Your task to perform on an android device: make emails show in primary in the gmail app Image 0: 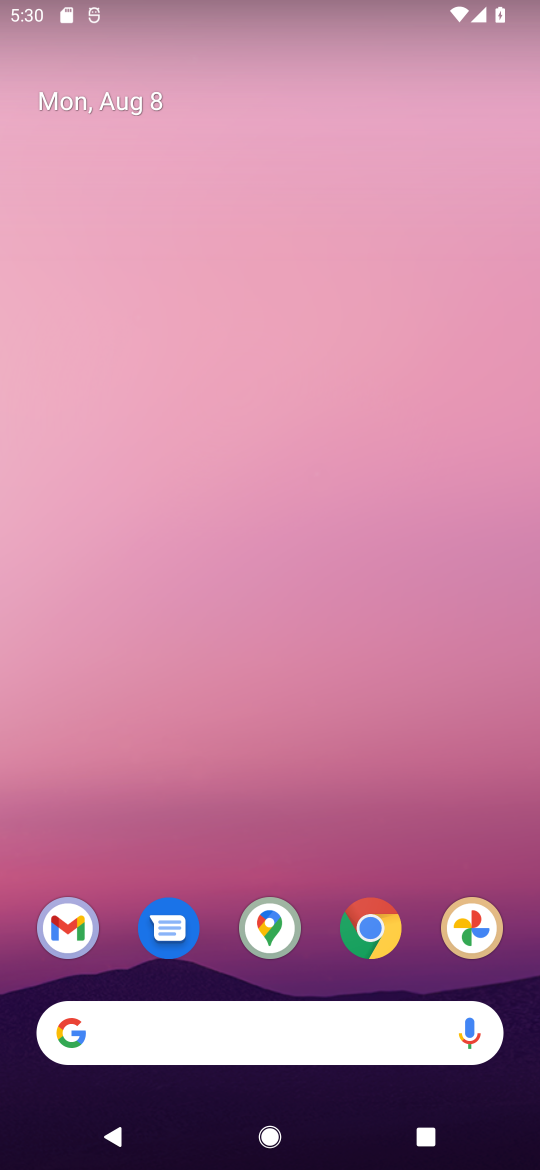
Step 0: drag from (214, 978) to (267, 9)
Your task to perform on an android device: make emails show in primary in the gmail app Image 1: 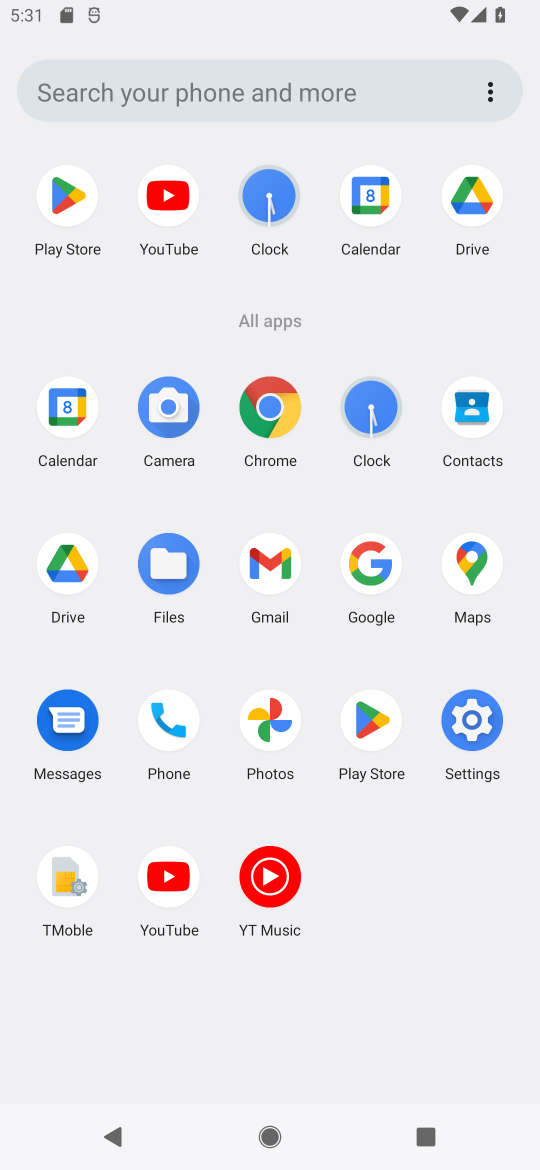
Step 1: click (282, 559)
Your task to perform on an android device: make emails show in primary in the gmail app Image 2: 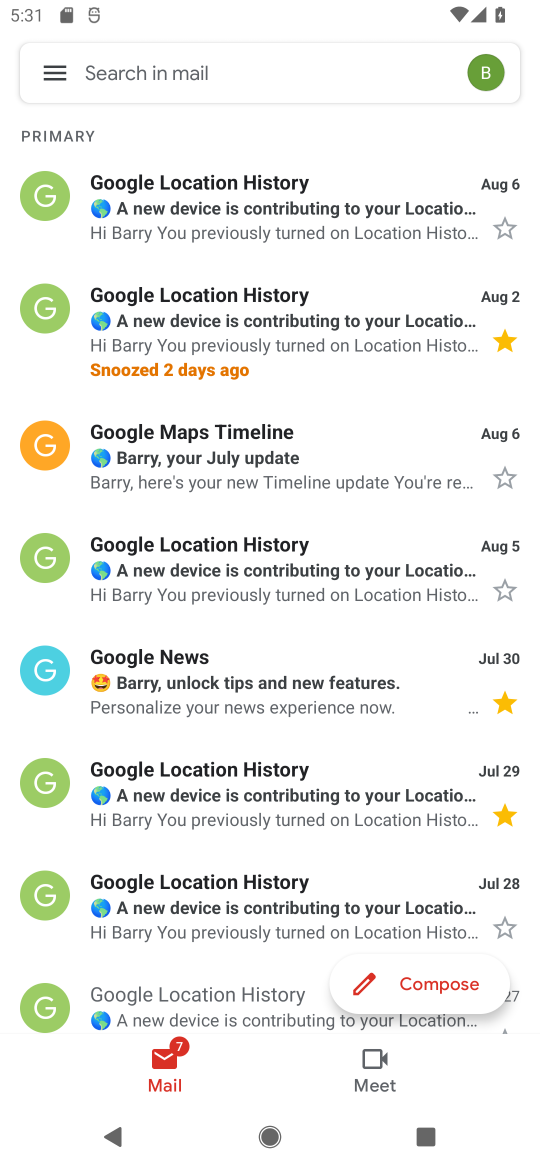
Step 2: click (47, 67)
Your task to perform on an android device: make emails show in primary in the gmail app Image 3: 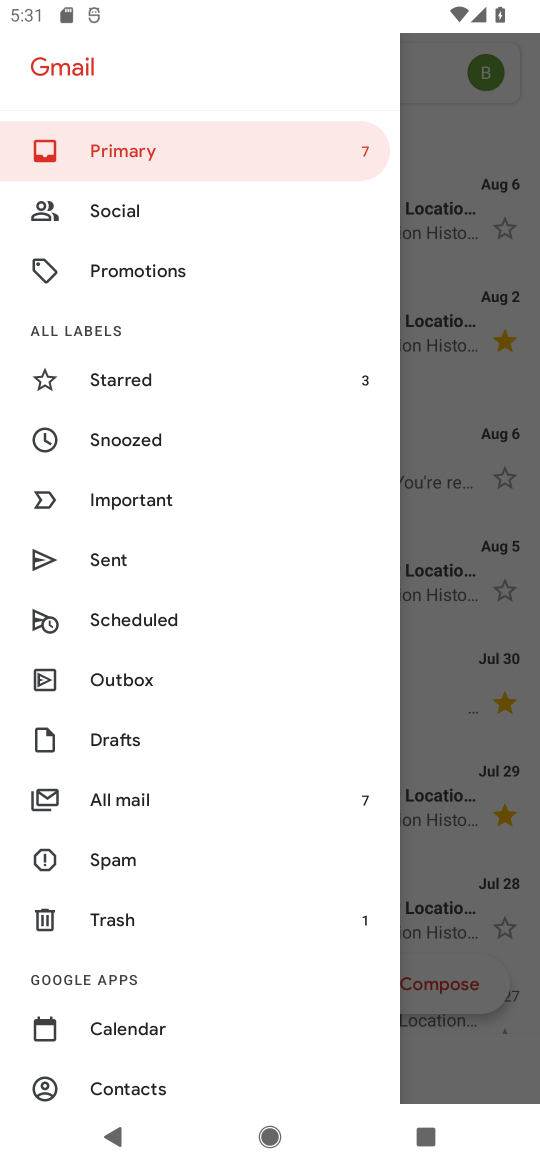
Step 3: drag from (118, 995) to (171, 619)
Your task to perform on an android device: make emails show in primary in the gmail app Image 4: 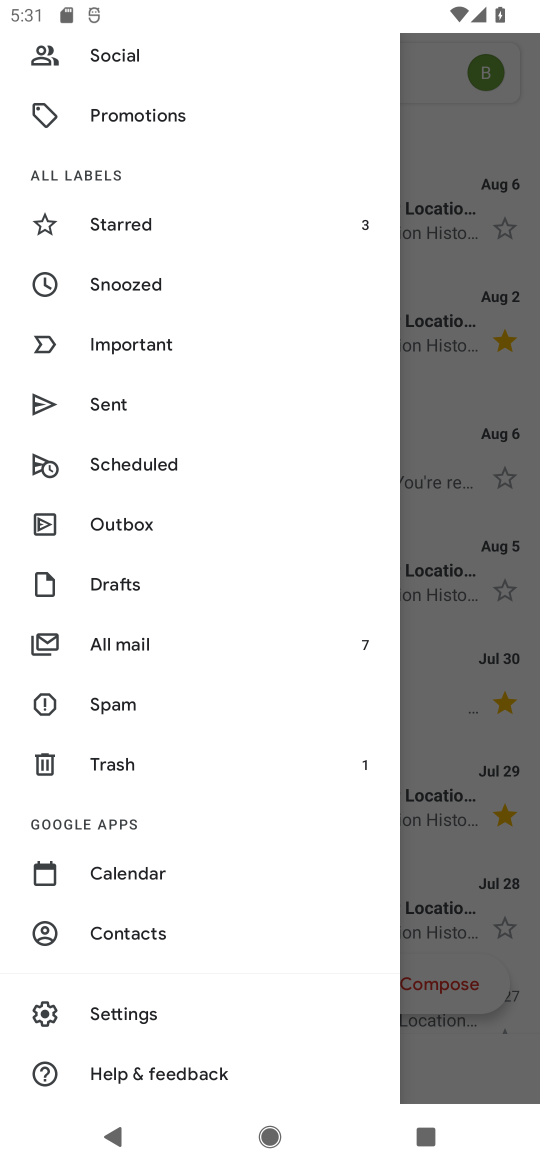
Step 4: click (135, 1006)
Your task to perform on an android device: make emails show in primary in the gmail app Image 5: 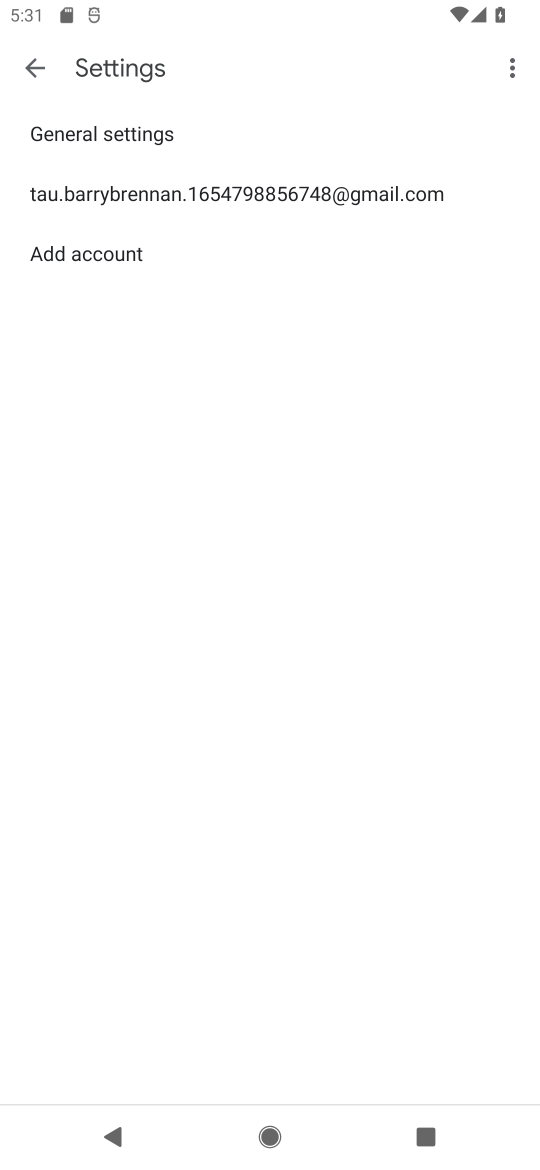
Step 5: click (134, 193)
Your task to perform on an android device: make emails show in primary in the gmail app Image 6: 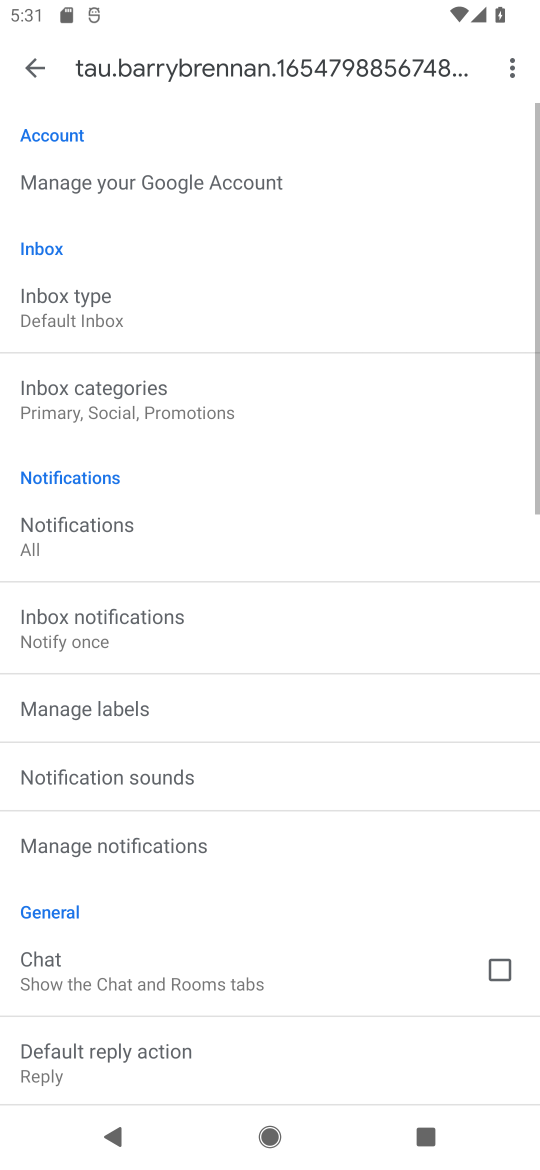
Step 6: click (191, 415)
Your task to perform on an android device: make emails show in primary in the gmail app Image 7: 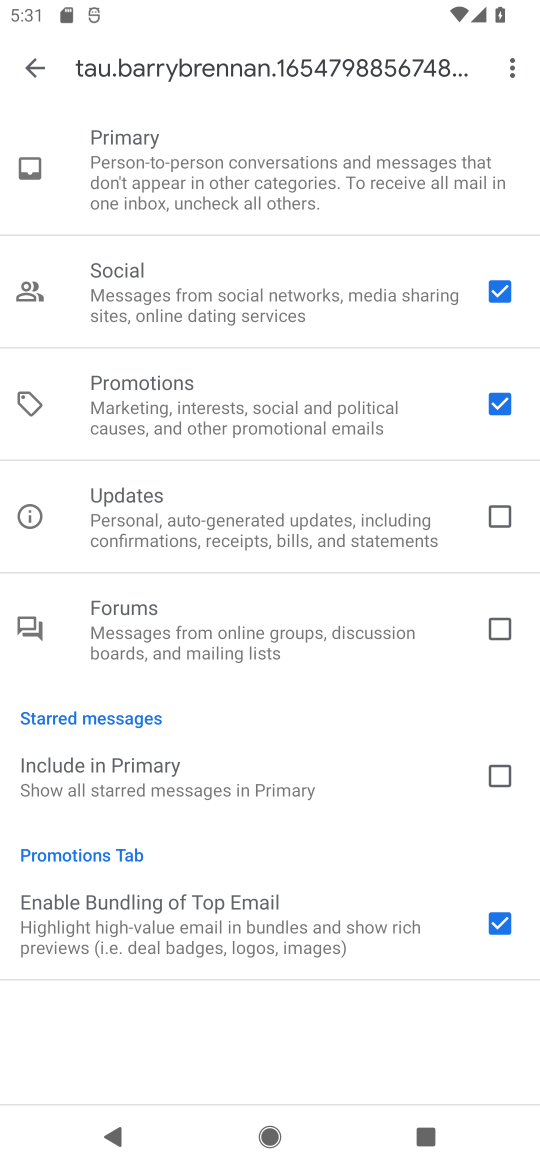
Step 7: click (499, 396)
Your task to perform on an android device: make emails show in primary in the gmail app Image 8: 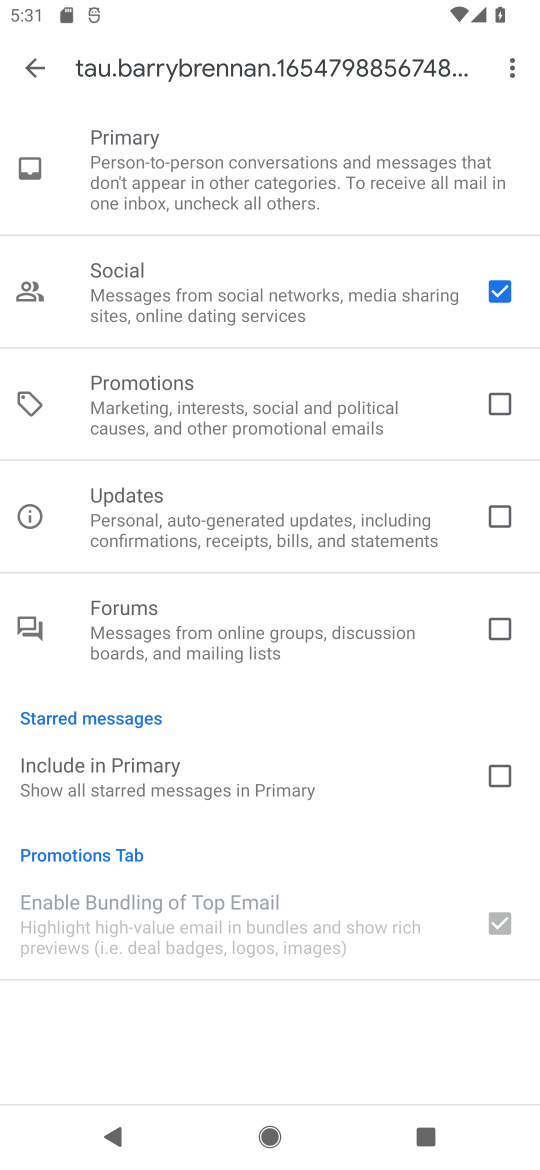
Step 8: click (507, 281)
Your task to perform on an android device: make emails show in primary in the gmail app Image 9: 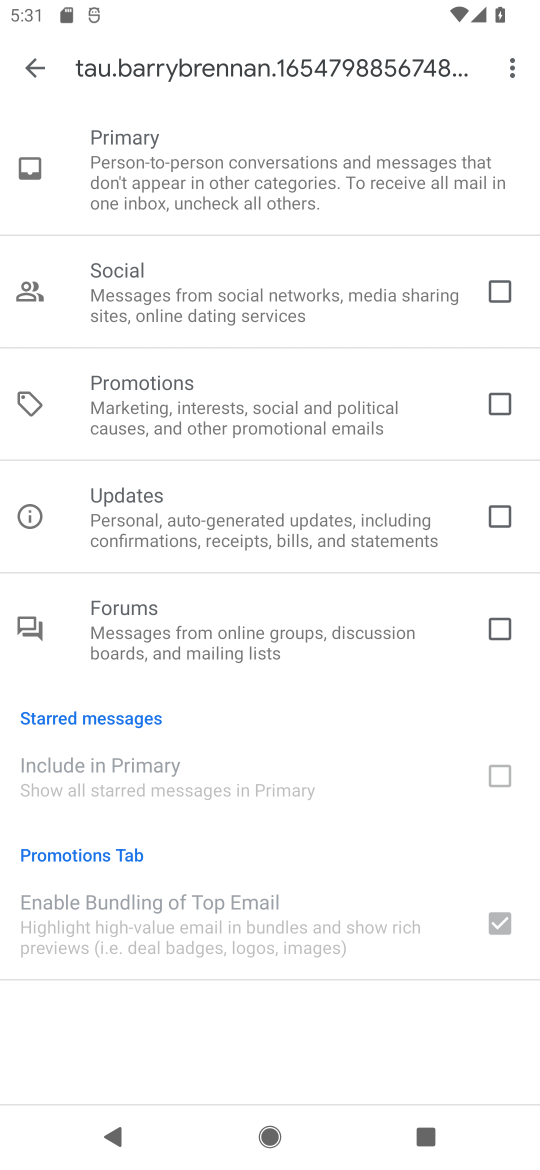
Step 9: task complete